Your task to perform on an android device: turn notification dots off Image 0: 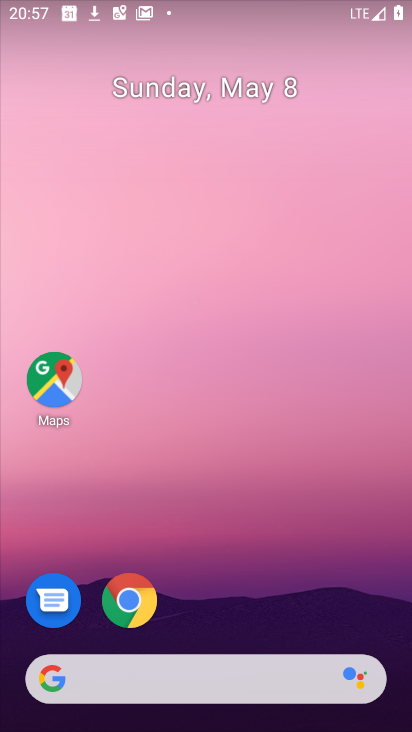
Step 0: drag from (243, 707) to (411, 93)
Your task to perform on an android device: turn notification dots off Image 1: 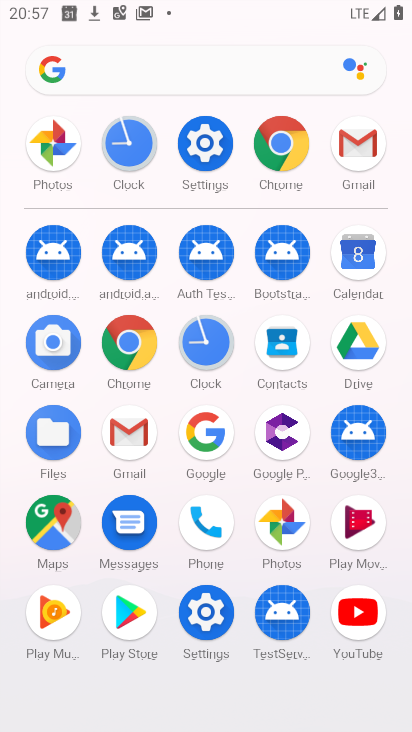
Step 1: click (194, 135)
Your task to perform on an android device: turn notification dots off Image 2: 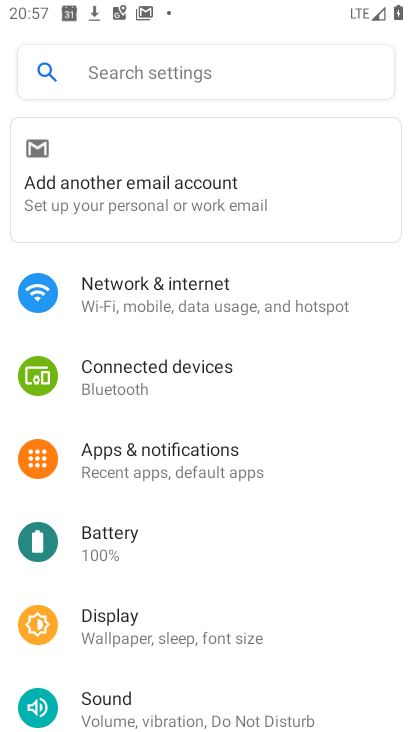
Step 2: click (218, 82)
Your task to perform on an android device: turn notification dots off Image 3: 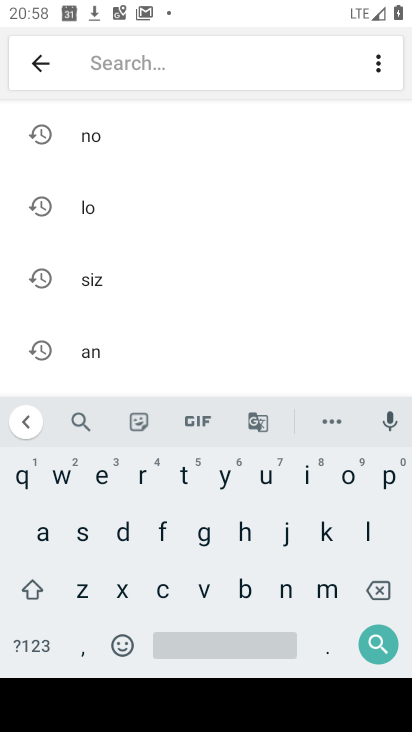
Step 3: click (120, 534)
Your task to perform on an android device: turn notification dots off Image 4: 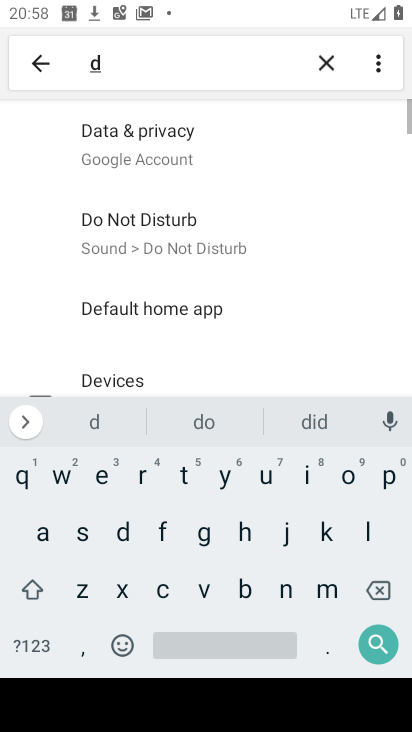
Step 4: click (344, 472)
Your task to perform on an android device: turn notification dots off Image 5: 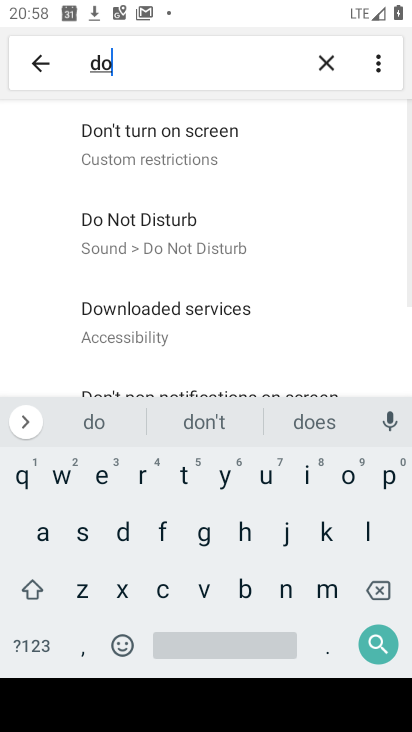
Step 5: click (181, 482)
Your task to perform on an android device: turn notification dots off Image 6: 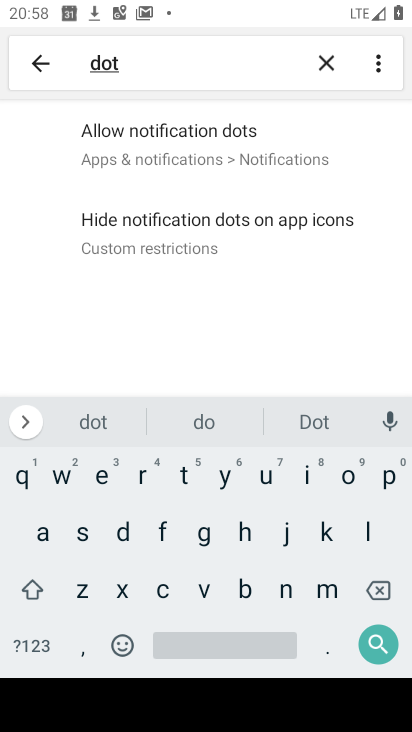
Step 6: click (221, 148)
Your task to perform on an android device: turn notification dots off Image 7: 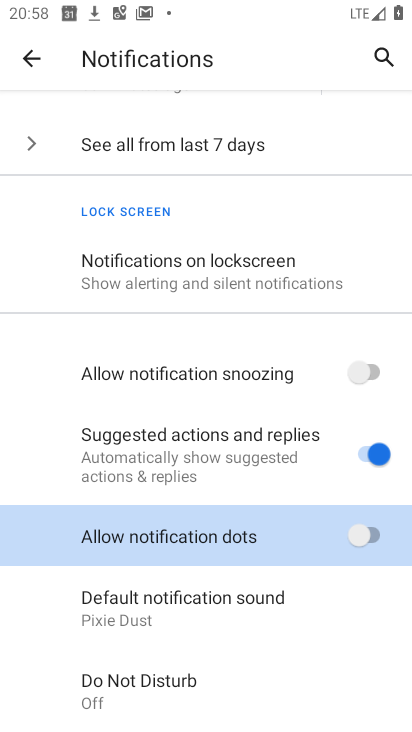
Step 7: click (235, 527)
Your task to perform on an android device: turn notification dots off Image 8: 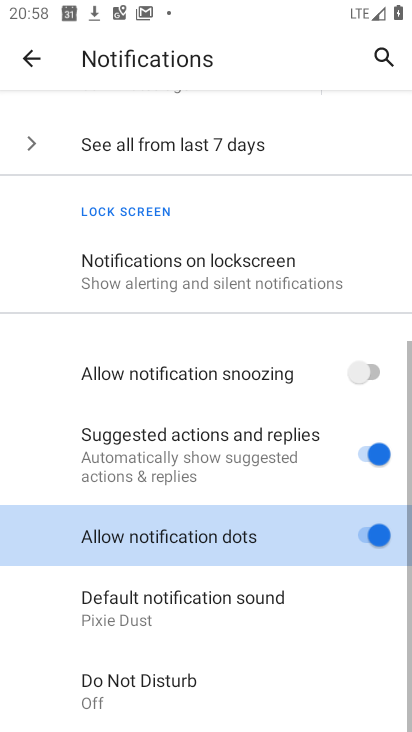
Step 8: click (236, 535)
Your task to perform on an android device: turn notification dots off Image 9: 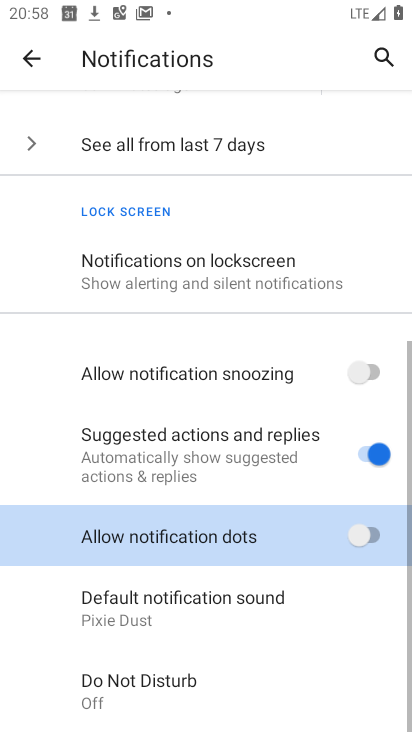
Step 9: task complete